Your task to perform on an android device: all mails in gmail Image 0: 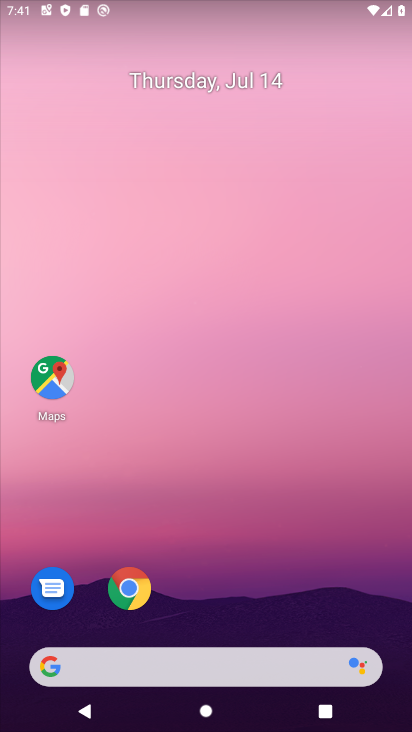
Step 0: drag from (352, 604) to (162, 21)
Your task to perform on an android device: all mails in gmail Image 1: 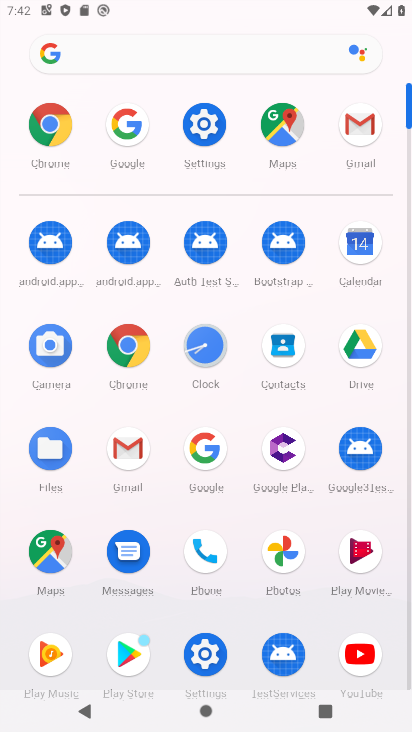
Step 1: click (127, 459)
Your task to perform on an android device: all mails in gmail Image 2: 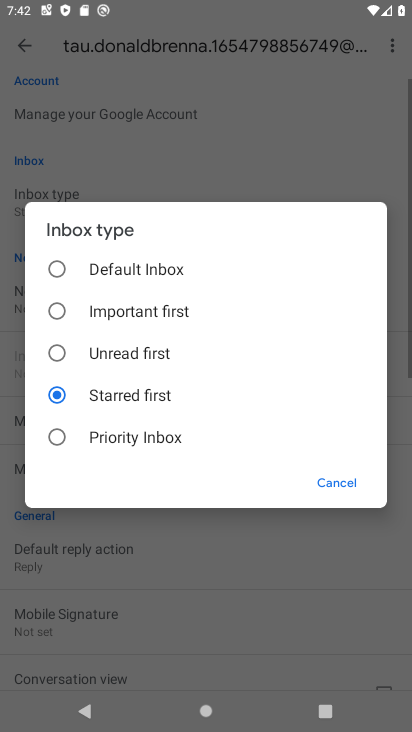
Step 2: click (338, 480)
Your task to perform on an android device: all mails in gmail Image 3: 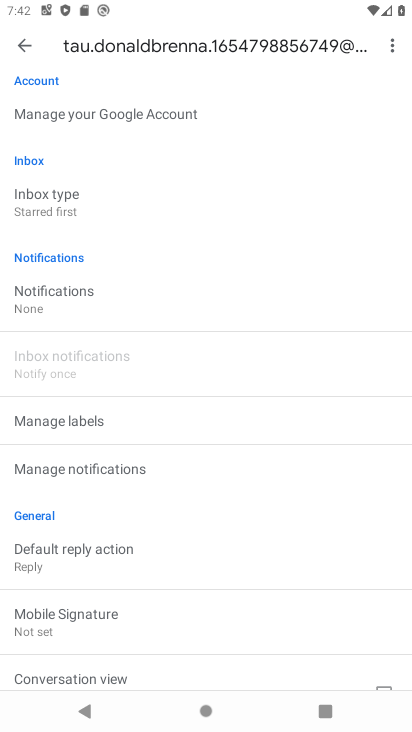
Step 3: press back button
Your task to perform on an android device: all mails in gmail Image 4: 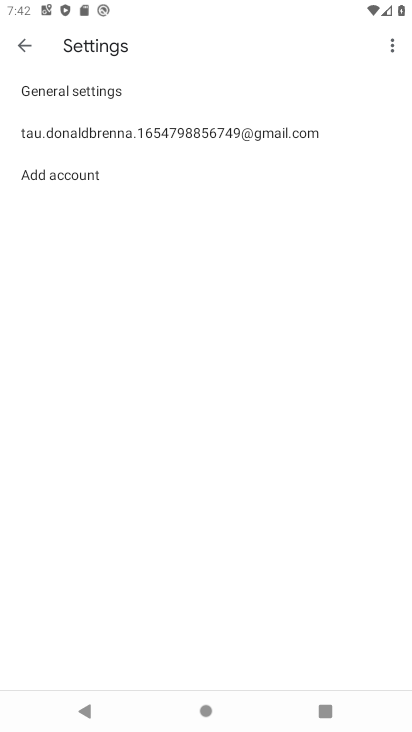
Step 4: press back button
Your task to perform on an android device: all mails in gmail Image 5: 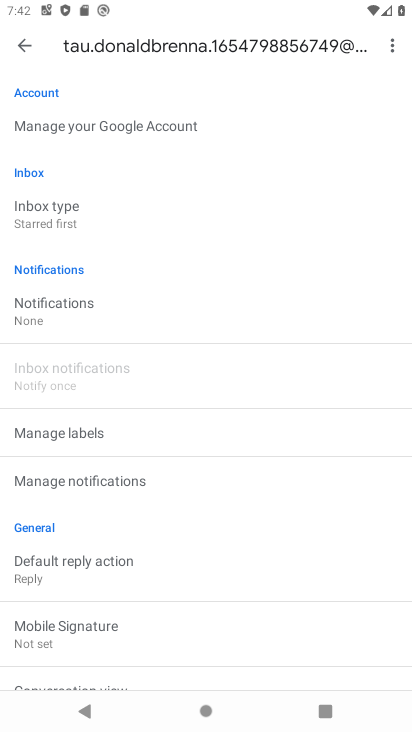
Step 5: press back button
Your task to perform on an android device: all mails in gmail Image 6: 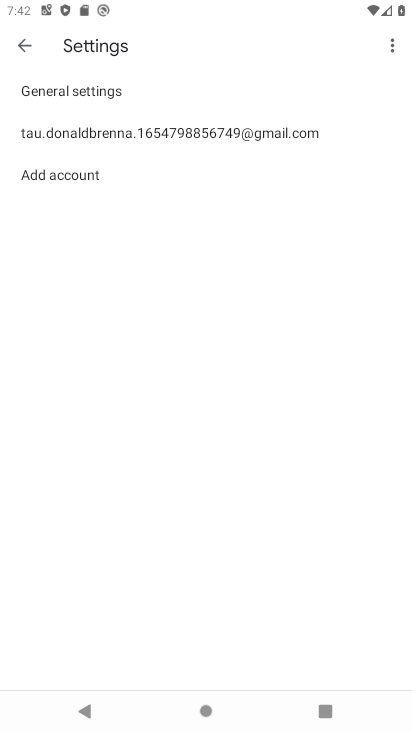
Step 6: press back button
Your task to perform on an android device: all mails in gmail Image 7: 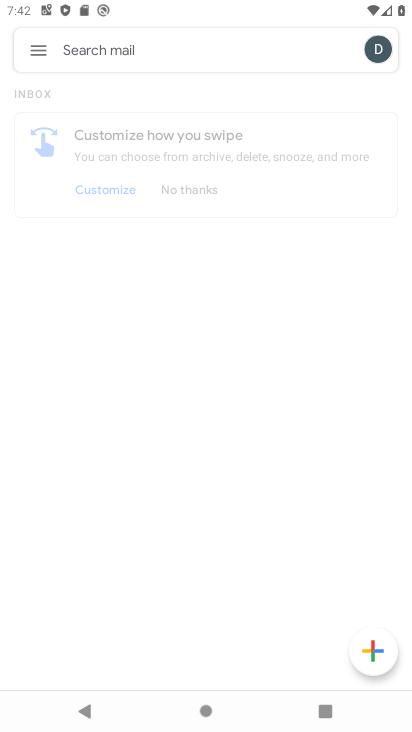
Step 7: click (32, 44)
Your task to perform on an android device: all mails in gmail Image 8: 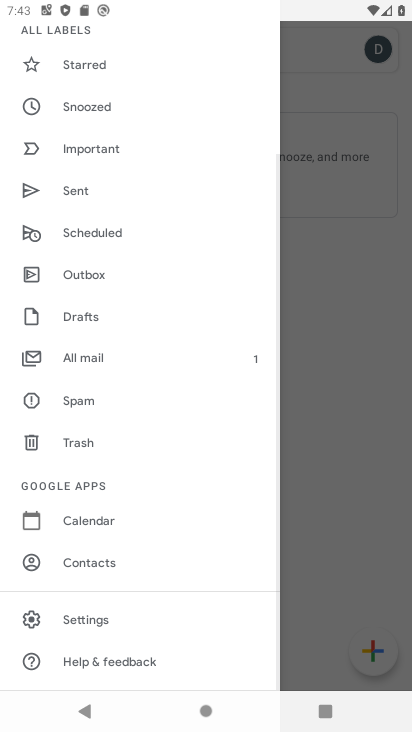
Step 8: click (95, 352)
Your task to perform on an android device: all mails in gmail Image 9: 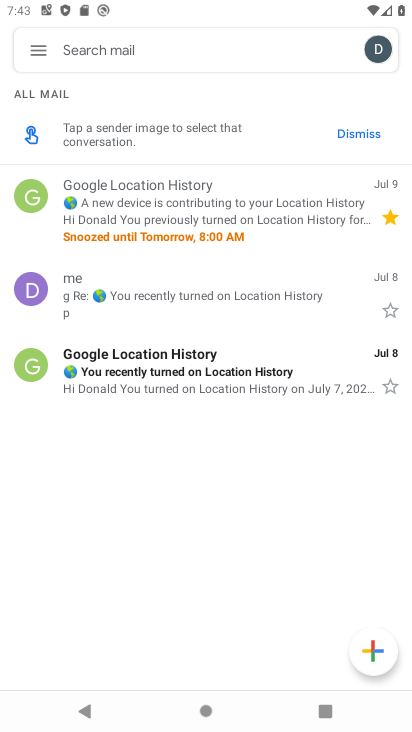
Step 9: task complete